Your task to perform on an android device: Open accessibility settings Image 0: 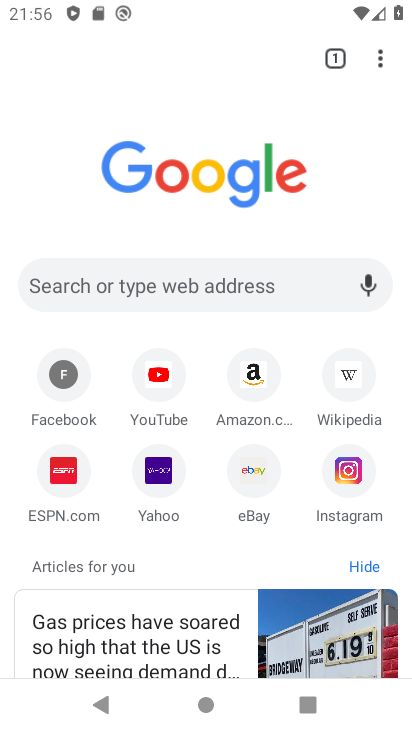
Step 0: press home button
Your task to perform on an android device: Open accessibility settings Image 1: 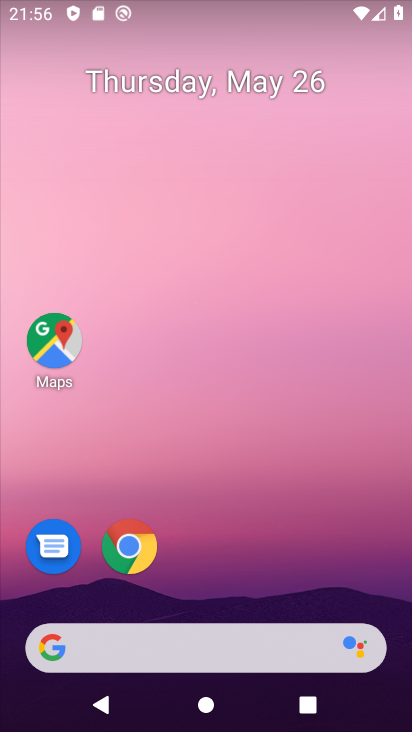
Step 1: drag from (265, 577) to (341, 168)
Your task to perform on an android device: Open accessibility settings Image 2: 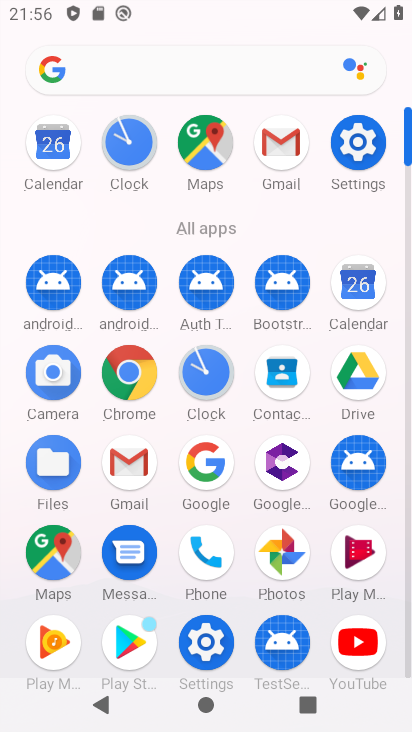
Step 2: click (351, 150)
Your task to perform on an android device: Open accessibility settings Image 3: 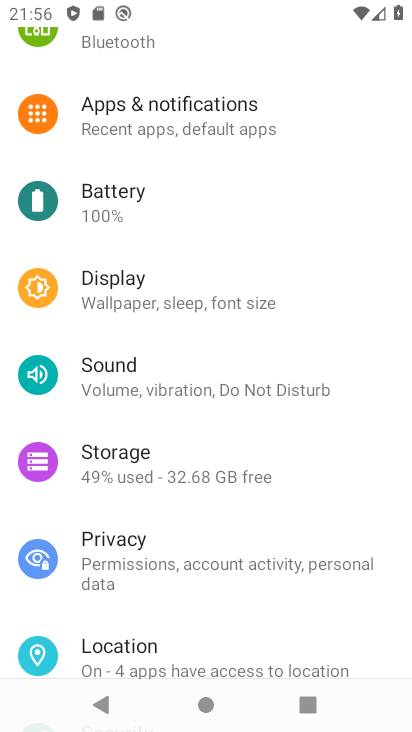
Step 3: drag from (346, 167) to (363, 0)
Your task to perform on an android device: Open accessibility settings Image 4: 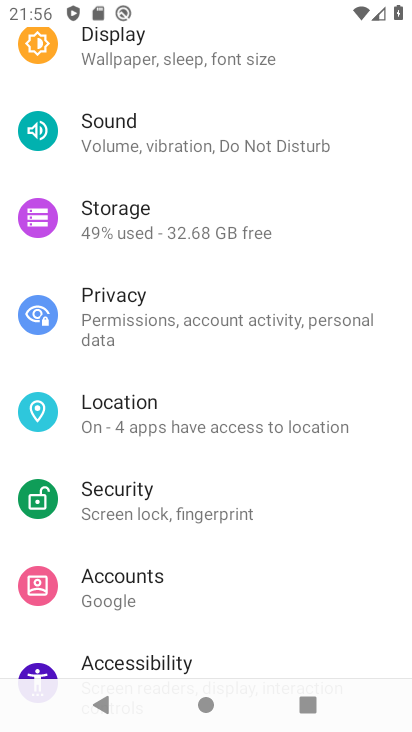
Step 4: drag from (334, 592) to (334, 298)
Your task to perform on an android device: Open accessibility settings Image 5: 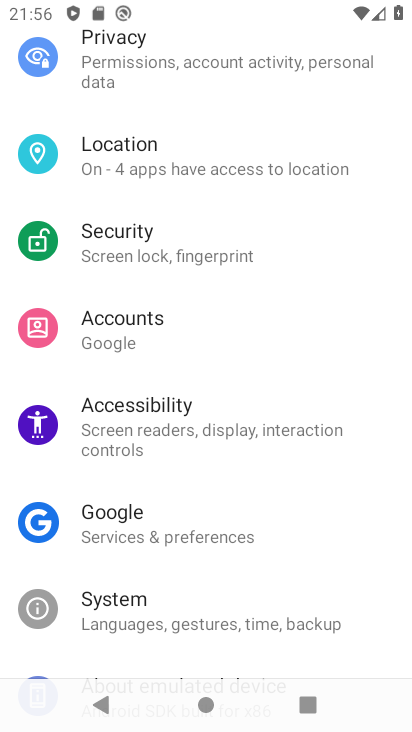
Step 5: click (264, 417)
Your task to perform on an android device: Open accessibility settings Image 6: 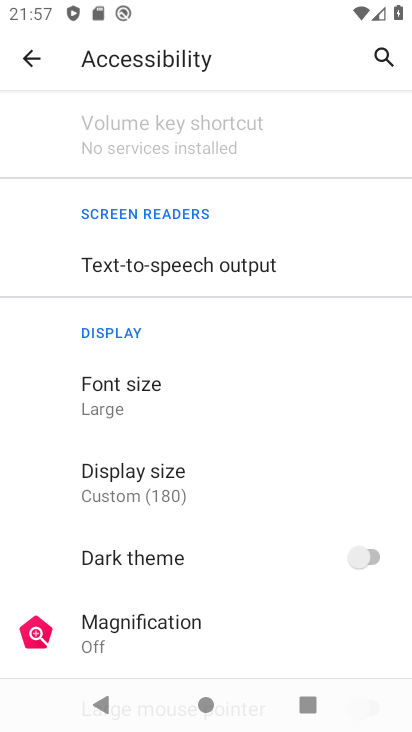
Step 6: task complete